Your task to perform on an android device: Show me the alarms in the clock app Image 0: 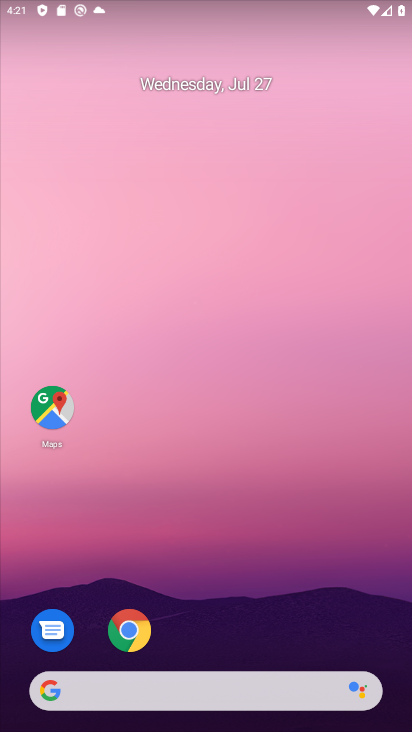
Step 0: drag from (228, 691) to (202, 230)
Your task to perform on an android device: Show me the alarms in the clock app Image 1: 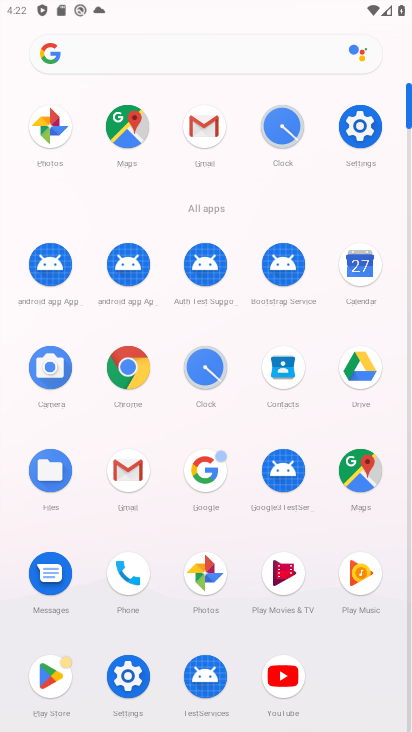
Step 1: click (283, 127)
Your task to perform on an android device: Show me the alarms in the clock app Image 2: 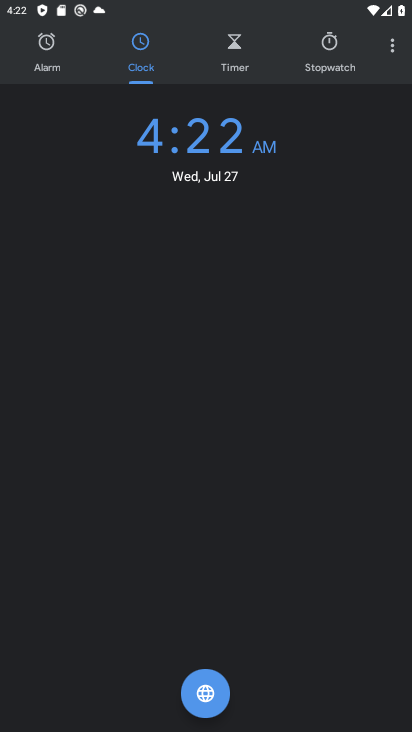
Step 2: click (47, 45)
Your task to perform on an android device: Show me the alarms in the clock app Image 3: 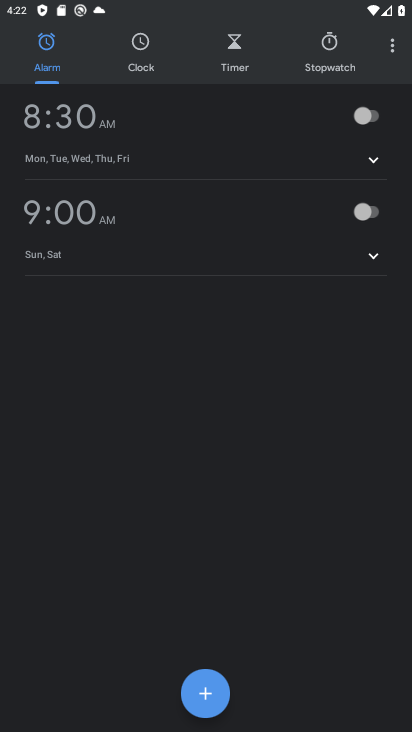
Step 3: click (205, 693)
Your task to perform on an android device: Show me the alarms in the clock app Image 4: 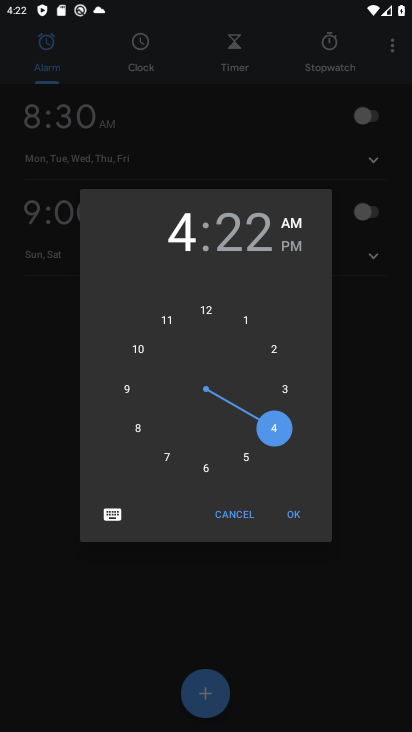
Step 4: click (209, 311)
Your task to perform on an android device: Show me the alarms in the clock app Image 5: 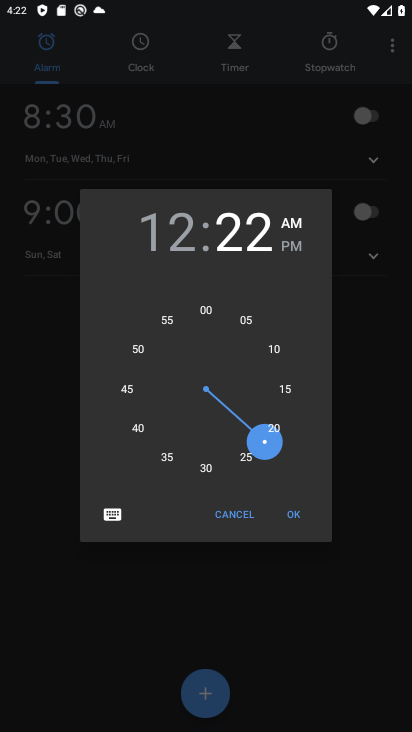
Step 5: click (209, 311)
Your task to perform on an android device: Show me the alarms in the clock app Image 6: 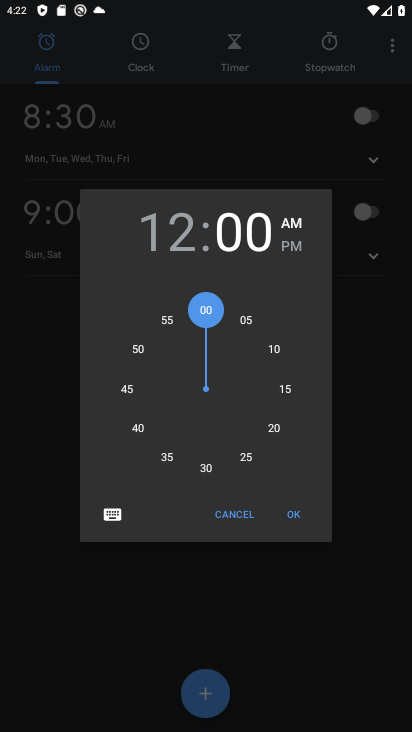
Step 6: click (289, 245)
Your task to perform on an android device: Show me the alarms in the clock app Image 7: 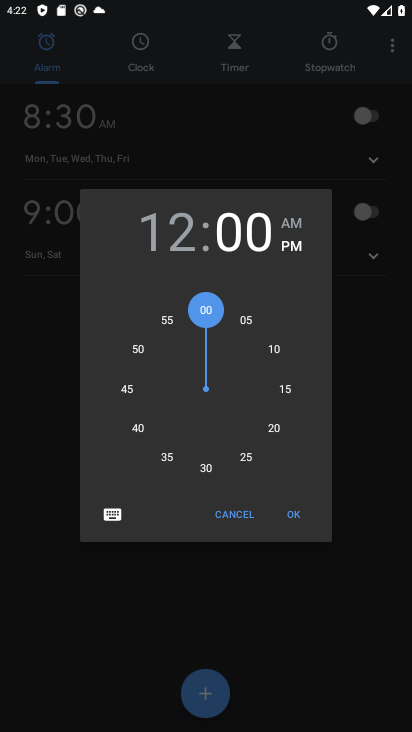
Step 7: click (288, 511)
Your task to perform on an android device: Show me the alarms in the clock app Image 8: 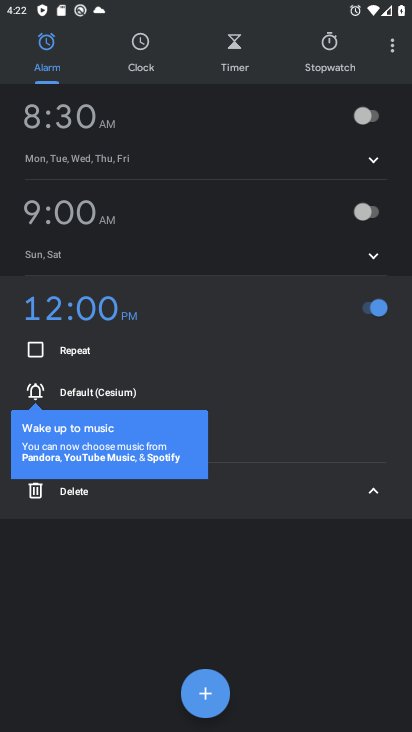
Step 8: click (372, 493)
Your task to perform on an android device: Show me the alarms in the clock app Image 9: 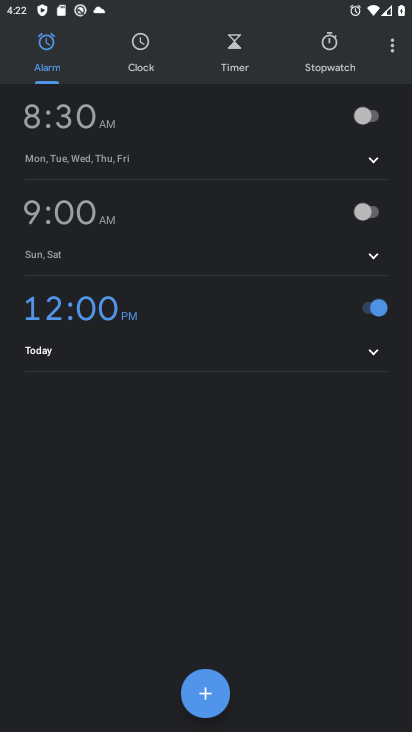
Step 9: task complete